Your task to perform on an android device: Open Google Maps and go to "Timeline" Image 0: 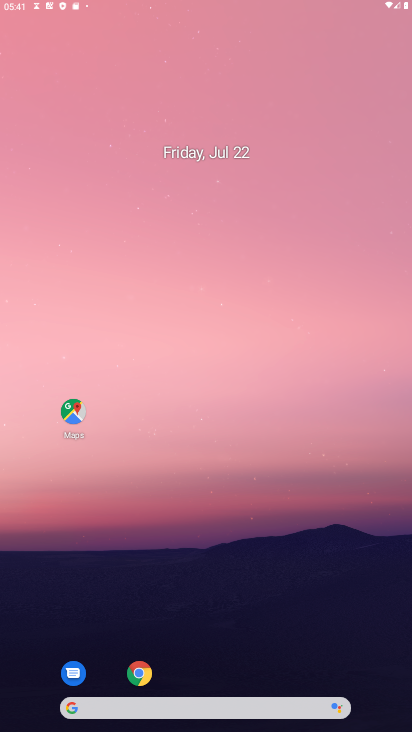
Step 0: press home button
Your task to perform on an android device: Open Google Maps and go to "Timeline" Image 1: 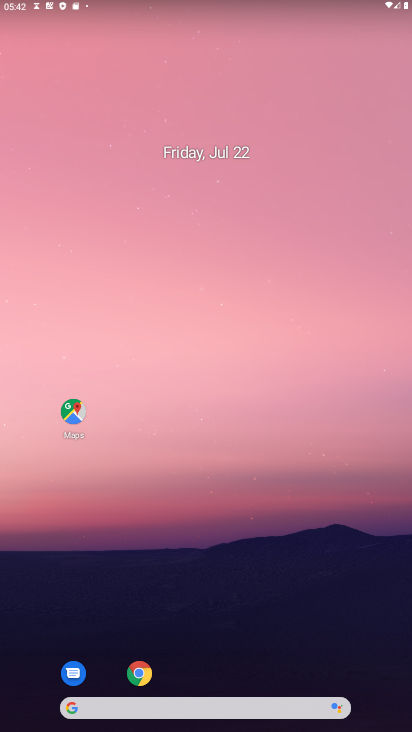
Step 1: drag from (213, 652) to (250, 5)
Your task to perform on an android device: Open Google Maps and go to "Timeline" Image 2: 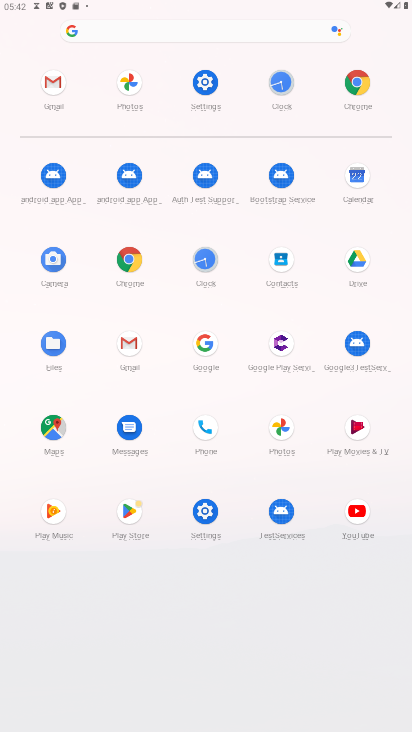
Step 2: click (53, 432)
Your task to perform on an android device: Open Google Maps and go to "Timeline" Image 3: 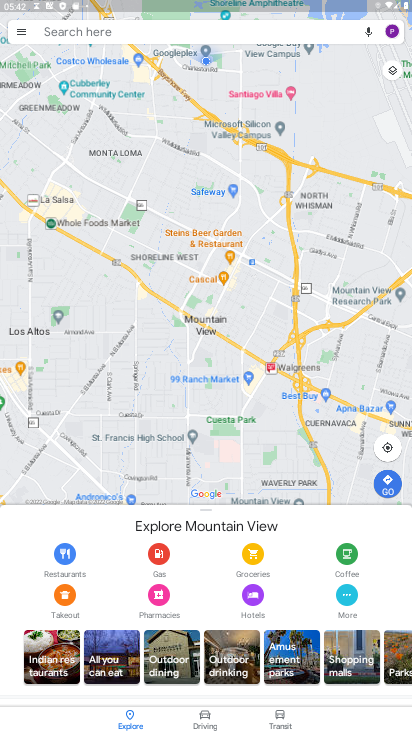
Step 3: click (21, 26)
Your task to perform on an android device: Open Google Maps and go to "Timeline" Image 4: 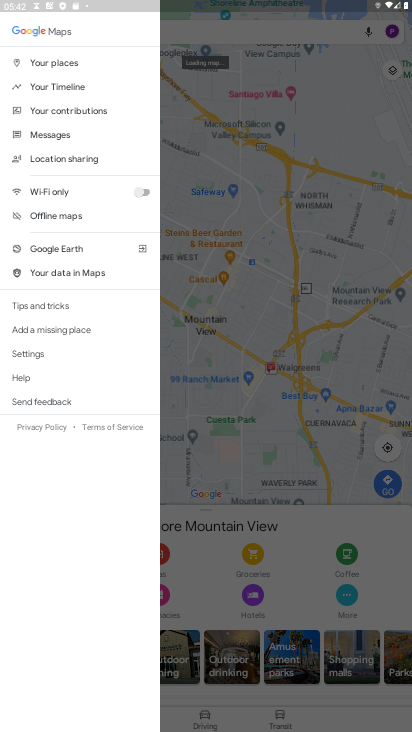
Step 4: click (52, 91)
Your task to perform on an android device: Open Google Maps and go to "Timeline" Image 5: 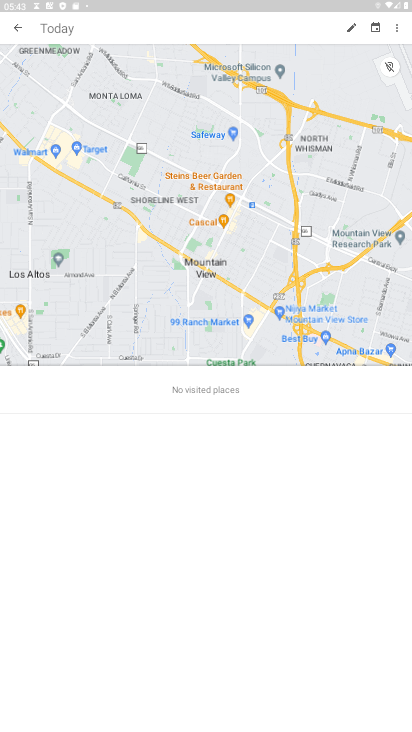
Step 5: task complete